Your task to perform on an android device: turn on location history Image 0: 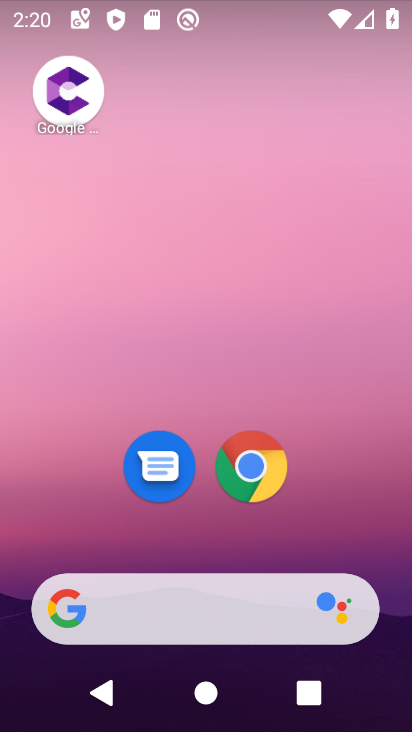
Step 0: drag from (293, 473) to (278, 167)
Your task to perform on an android device: turn on location history Image 1: 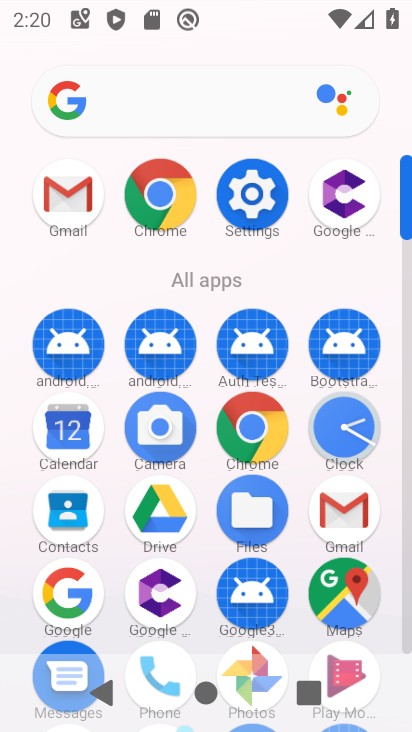
Step 1: click (223, 198)
Your task to perform on an android device: turn on location history Image 2: 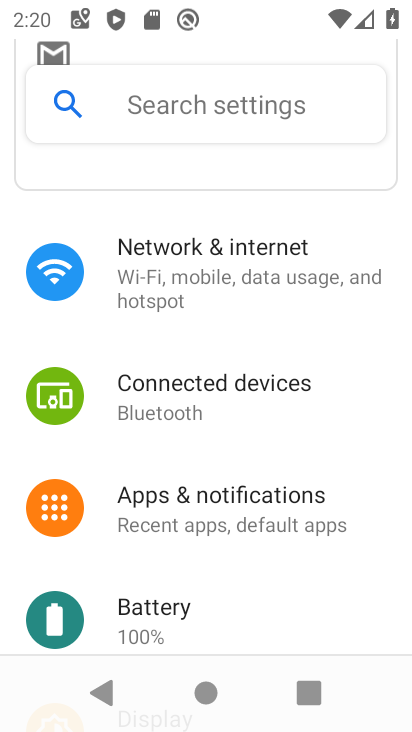
Step 2: drag from (220, 639) to (216, 337)
Your task to perform on an android device: turn on location history Image 3: 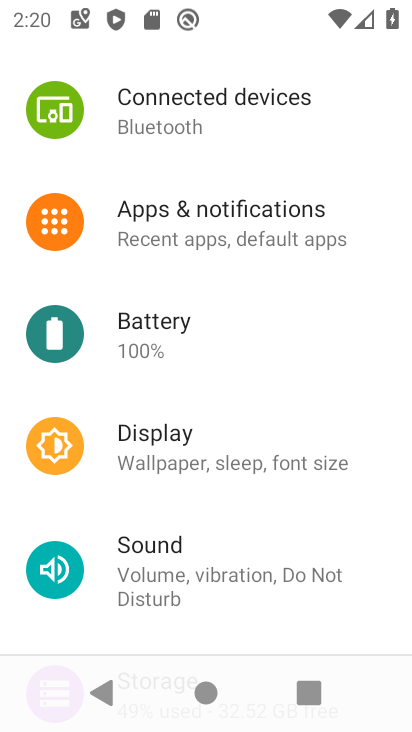
Step 3: drag from (192, 604) to (188, 207)
Your task to perform on an android device: turn on location history Image 4: 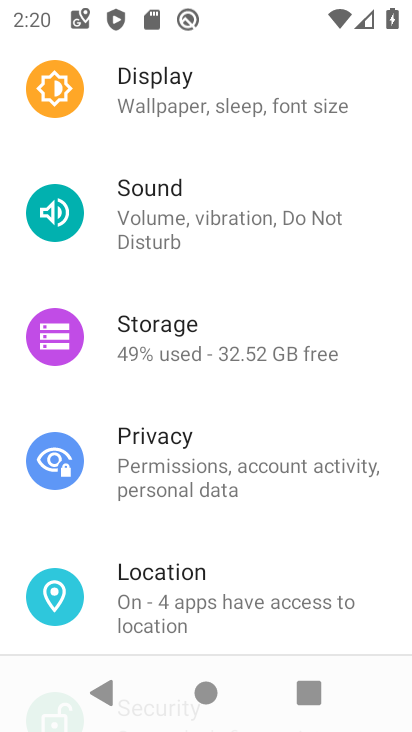
Step 4: click (167, 594)
Your task to perform on an android device: turn on location history Image 5: 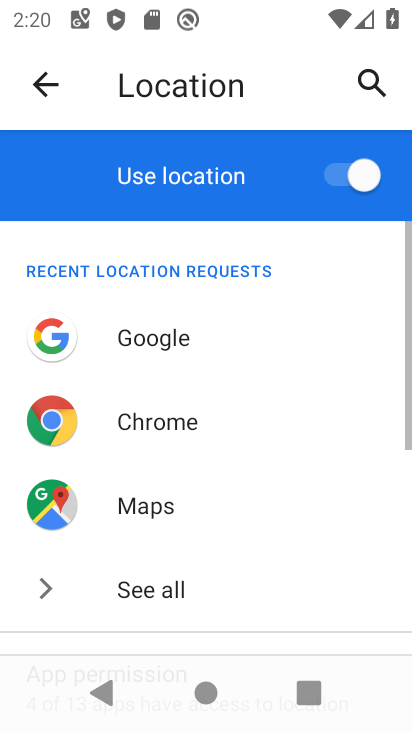
Step 5: drag from (186, 608) to (202, 190)
Your task to perform on an android device: turn on location history Image 6: 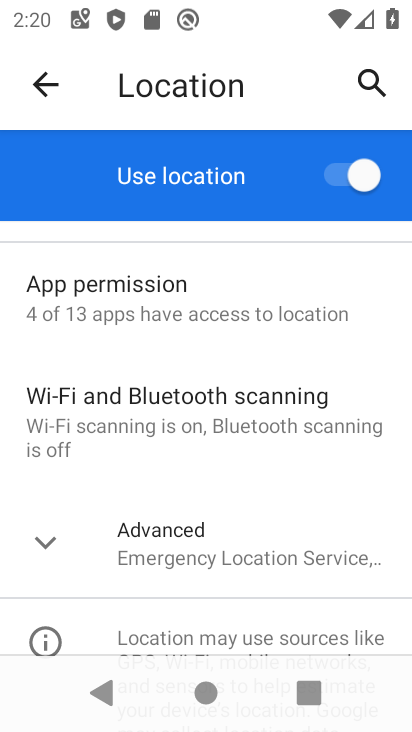
Step 6: click (188, 548)
Your task to perform on an android device: turn on location history Image 7: 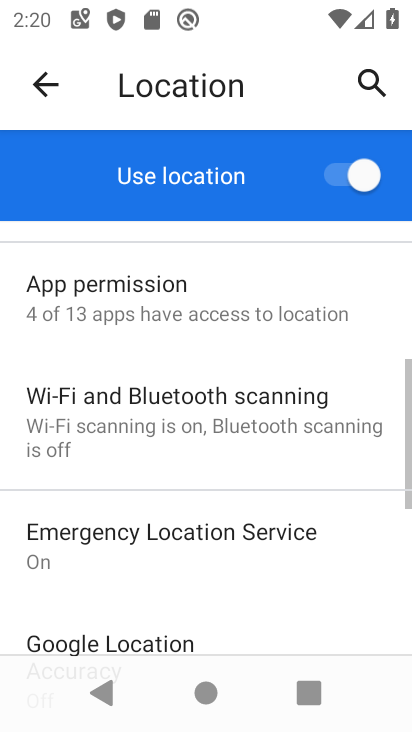
Step 7: drag from (190, 606) to (212, 289)
Your task to perform on an android device: turn on location history Image 8: 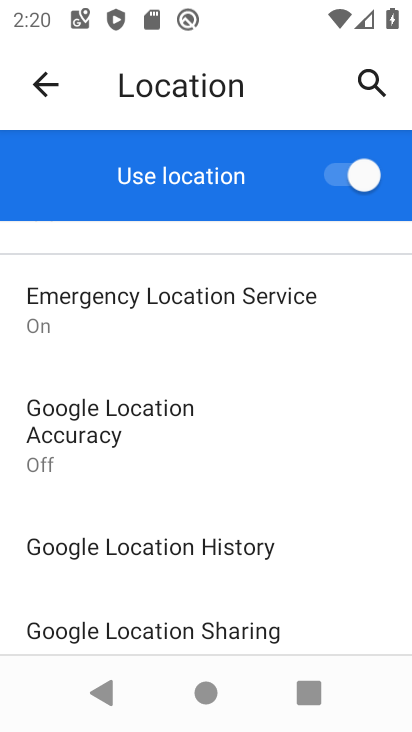
Step 8: click (252, 545)
Your task to perform on an android device: turn on location history Image 9: 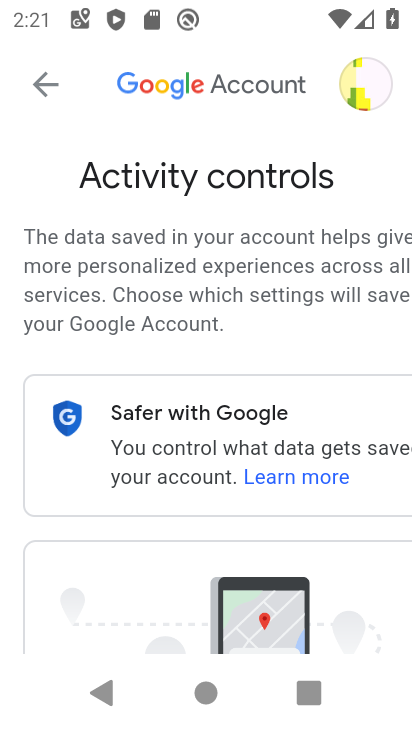
Step 9: task complete